Your task to perform on an android device: Open Google Maps and go to "Timeline" Image 0: 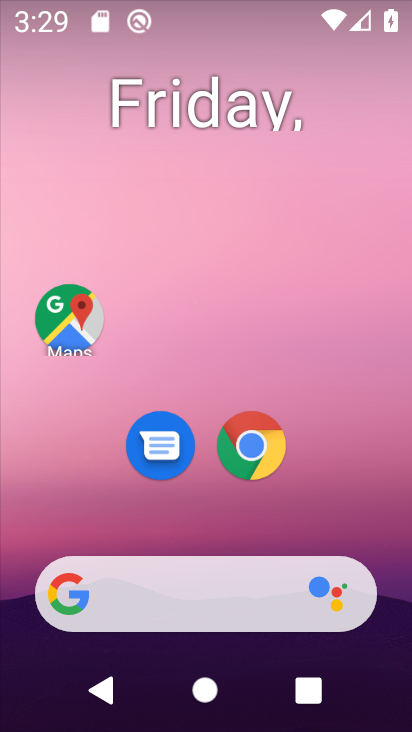
Step 0: click (91, 320)
Your task to perform on an android device: Open Google Maps and go to "Timeline" Image 1: 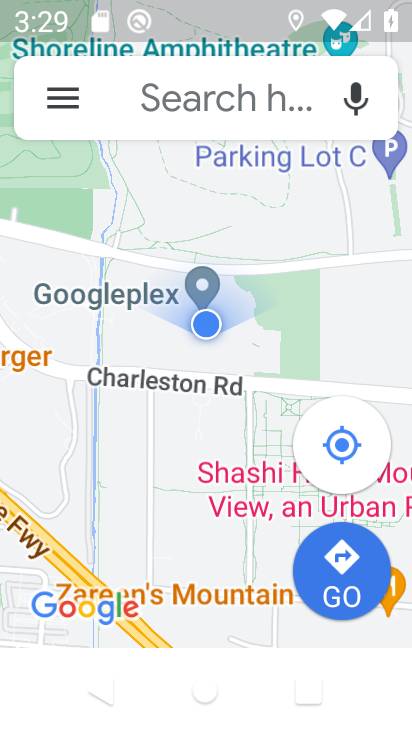
Step 1: click (70, 107)
Your task to perform on an android device: Open Google Maps and go to "Timeline" Image 2: 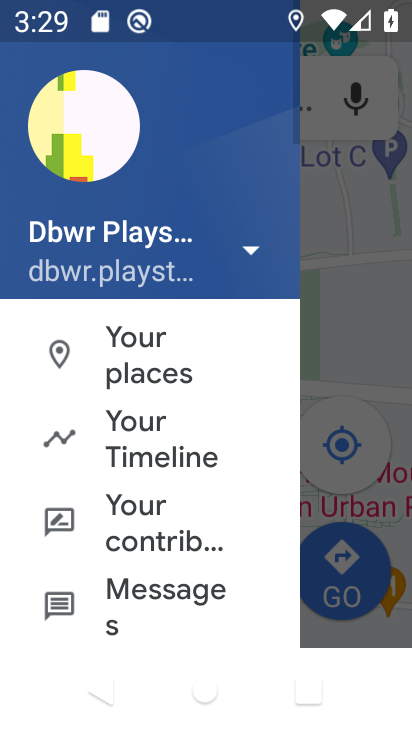
Step 2: click (185, 434)
Your task to perform on an android device: Open Google Maps and go to "Timeline" Image 3: 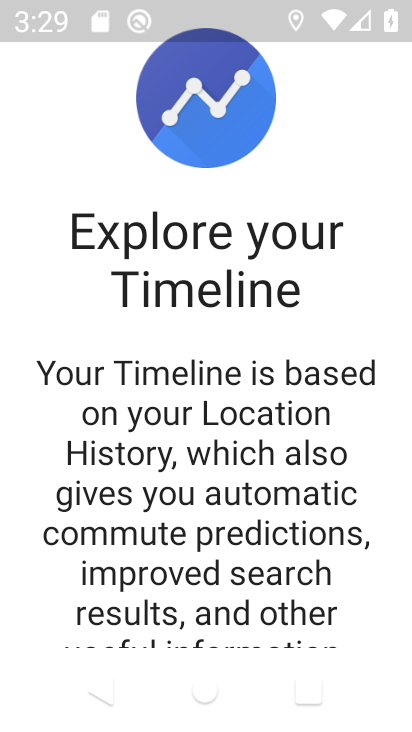
Step 3: drag from (287, 596) to (269, 250)
Your task to perform on an android device: Open Google Maps and go to "Timeline" Image 4: 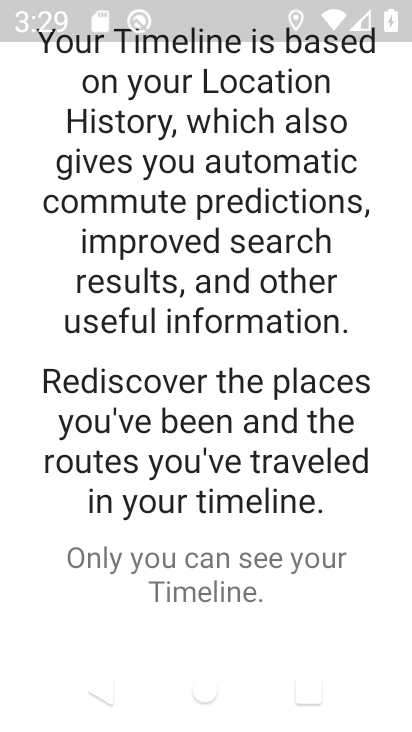
Step 4: drag from (329, 557) to (306, 232)
Your task to perform on an android device: Open Google Maps and go to "Timeline" Image 5: 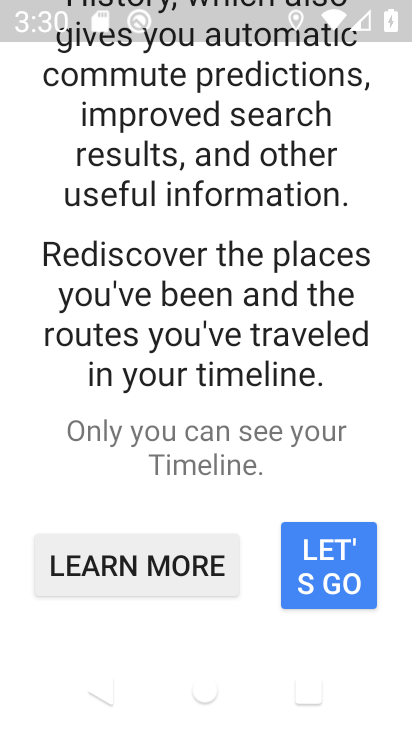
Step 5: click (331, 568)
Your task to perform on an android device: Open Google Maps and go to "Timeline" Image 6: 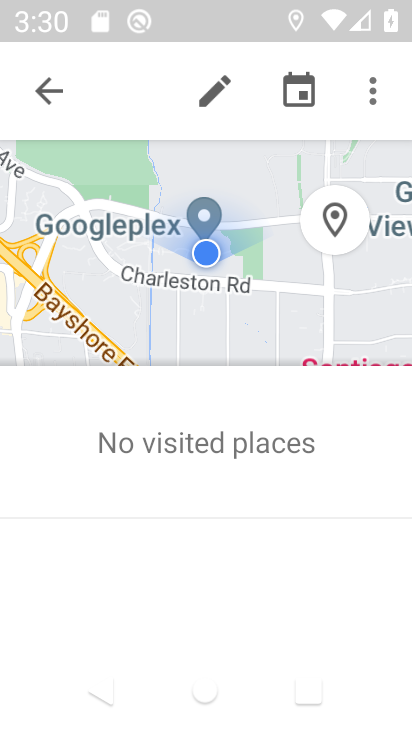
Step 6: task complete